Your task to perform on an android device: make emails show in primary in the gmail app Image 0: 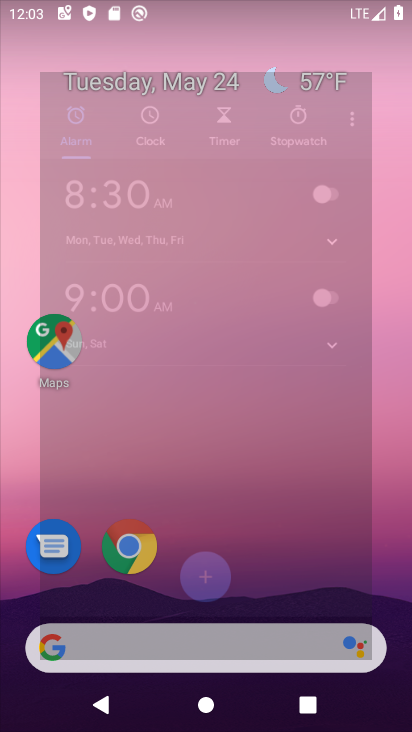
Step 0: drag from (208, 621) to (243, 129)
Your task to perform on an android device: make emails show in primary in the gmail app Image 1: 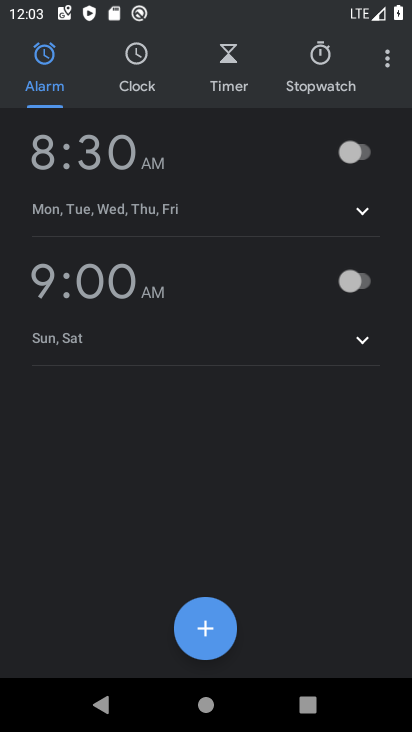
Step 1: press home button
Your task to perform on an android device: make emails show in primary in the gmail app Image 2: 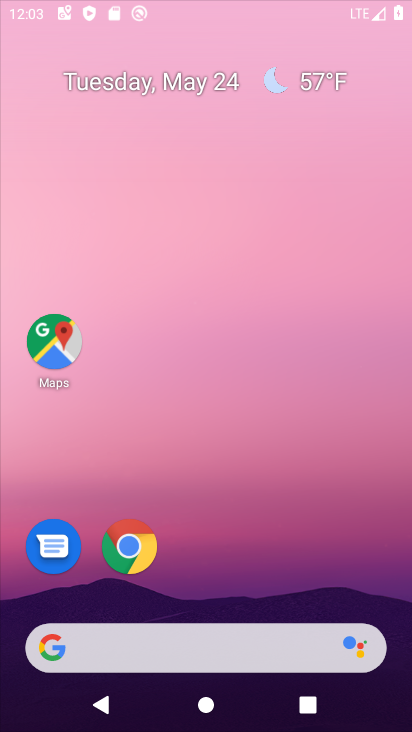
Step 2: drag from (195, 537) to (299, 16)
Your task to perform on an android device: make emails show in primary in the gmail app Image 3: 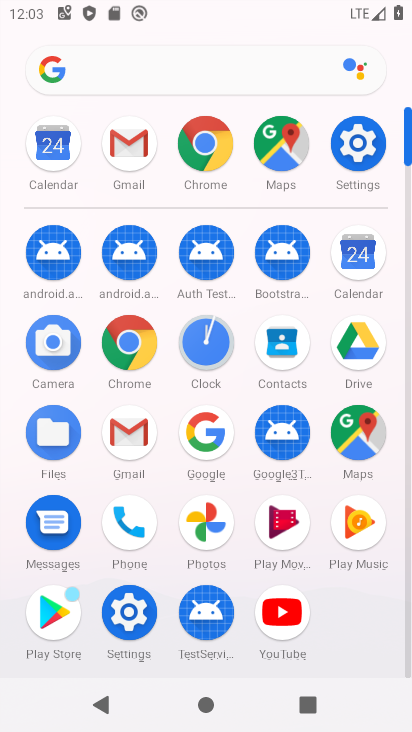
Step 3: click (125, 424)
Your task to perform on an android device: make emails show in primary in the gmail app Image 4: 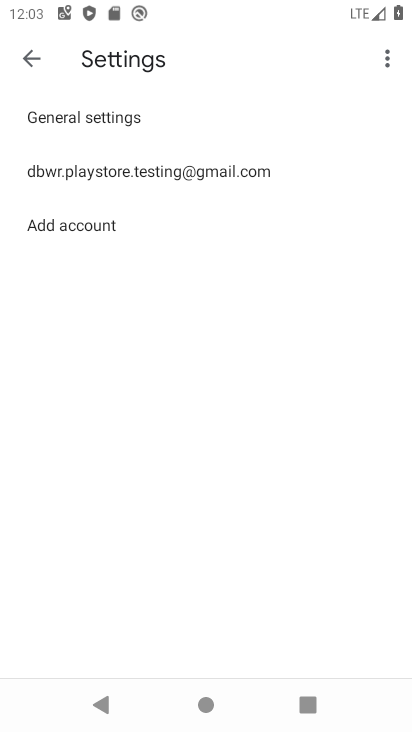
Step 4: click (234, 167)
Your task to perform on an android device: make emails show in primary in the gmail app Image 5: 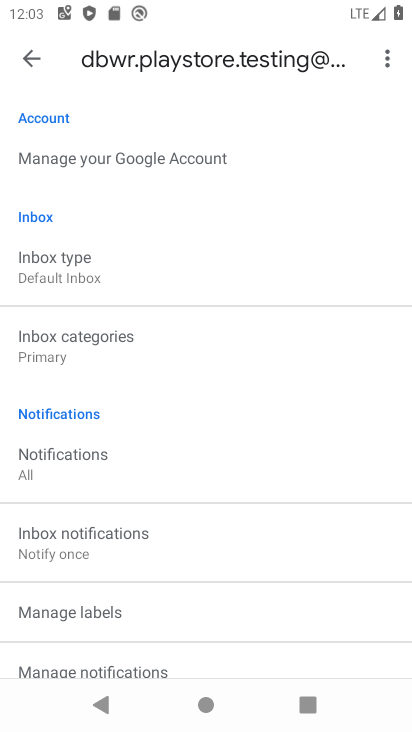
Step 5: drag from (190, 593) to (230, 233)
Your task to perform on an android device: make emails show in primary in the gmail app Image 6: 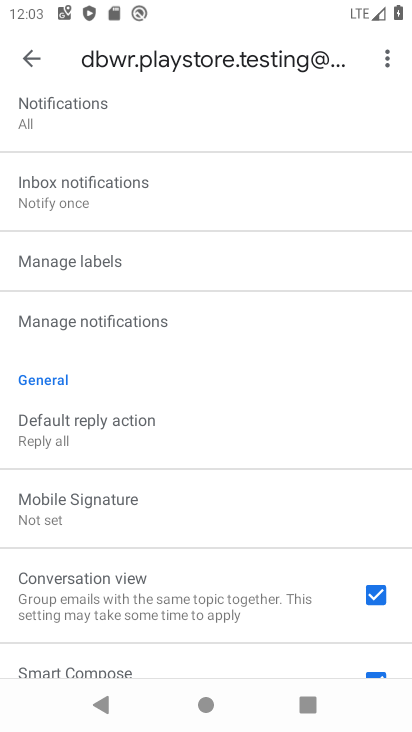
Step 6: drag from (144, 233) to (272, 699)
Your task to perform on an android device: make emails show in primary in the gmail app Image 7: 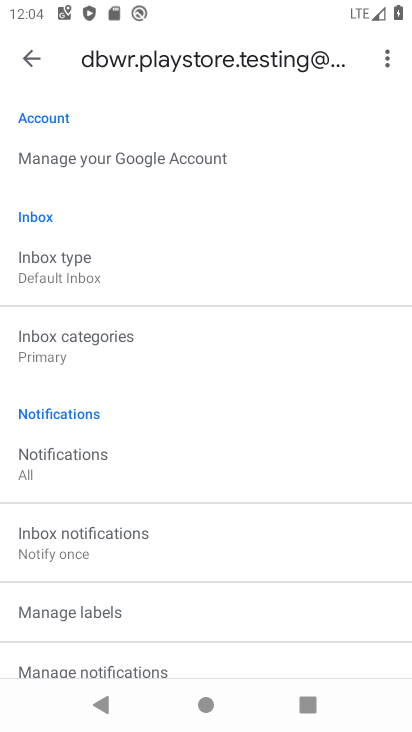
Step 7: drag from (146, 292) to (253, 636)
Your task to perform on an android device: make emails show in primary in the gmail app Image 8: 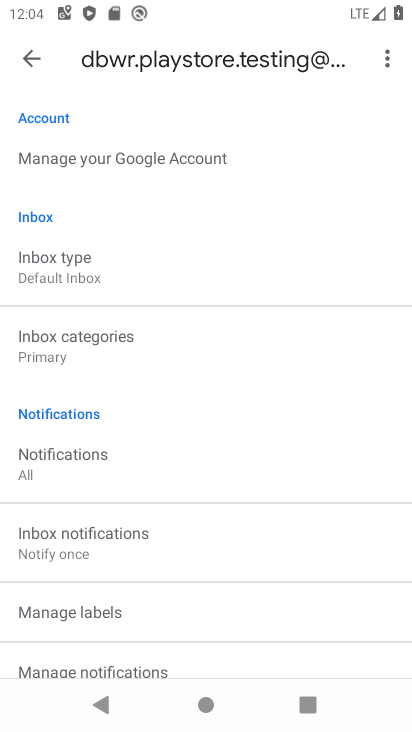
Step 8: click (44, 52)
Your task to perform on an android device: make emails show in primary in the gmail app Image 9: 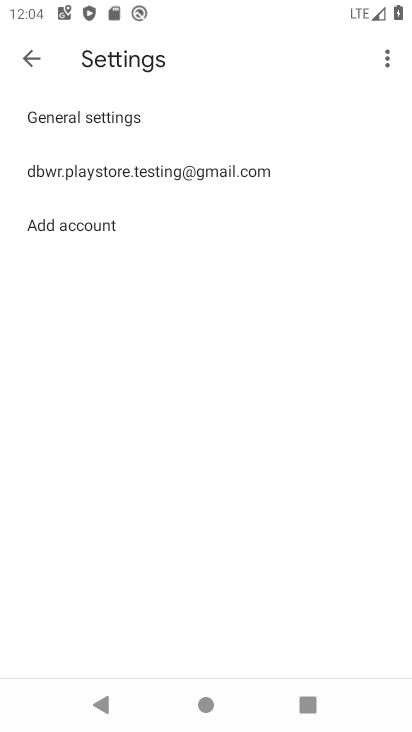
Step 9: click (44, 52)
Your task to perform on an android device: make emails show in primary in the gmail app Image 10: 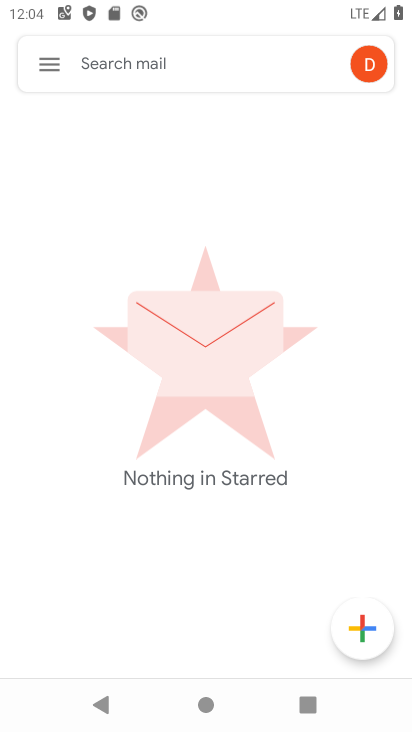
Step 10: click (43, 53)
Your task to perform on an android device: make emails show in primary in the gmail app Image 11: 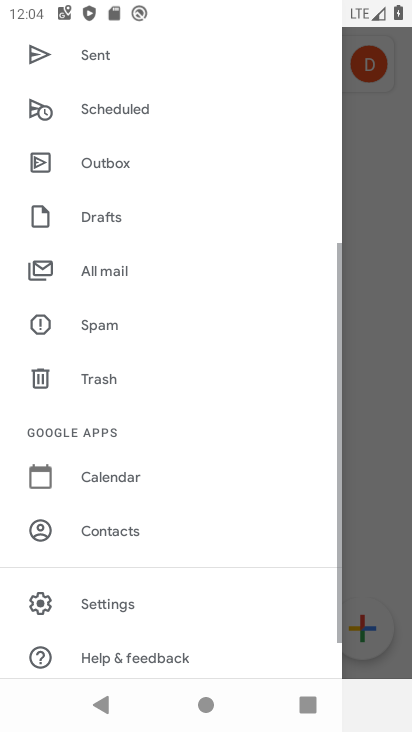
Step 11: drag from (183, 122) to (187, 632)
Your task to perform on an android device: make emails show in primary in the gmail app Image 12: 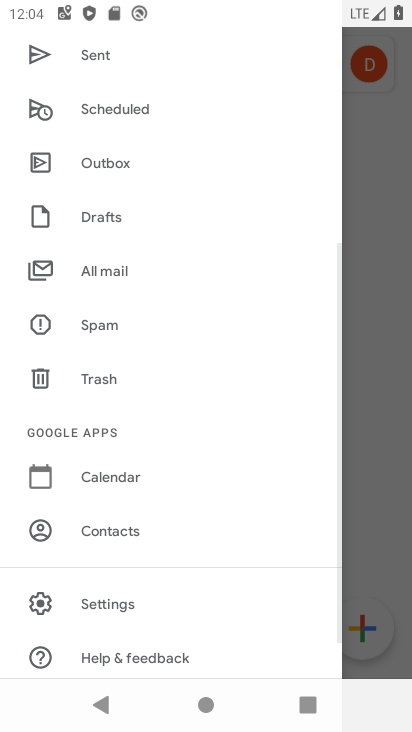
Step 12: drag from (129, 144) to (167, 703)
Your task to perform on an android device: make emails show in primary in the gmail app Image 13: 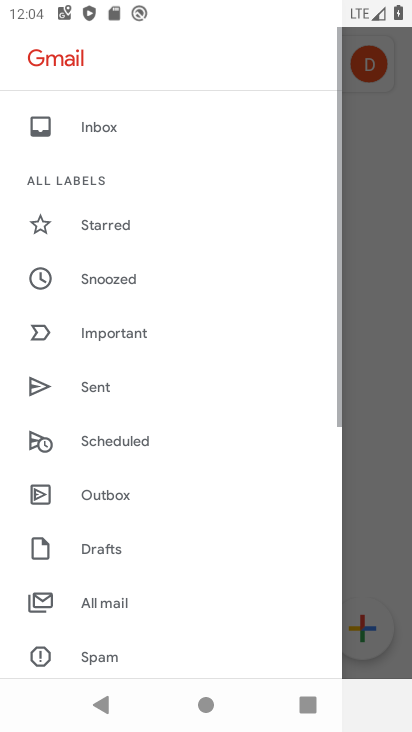
Step 13: click (120, 117)
Your task to perform on an android device: make emails show in primary in the gmail app Image 14: 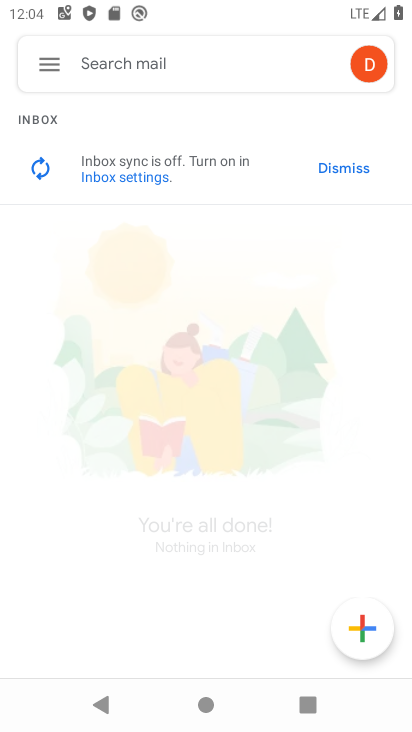
Step 14: task complete